Your task to perform on an android device: install app "Spotify" Image 0: 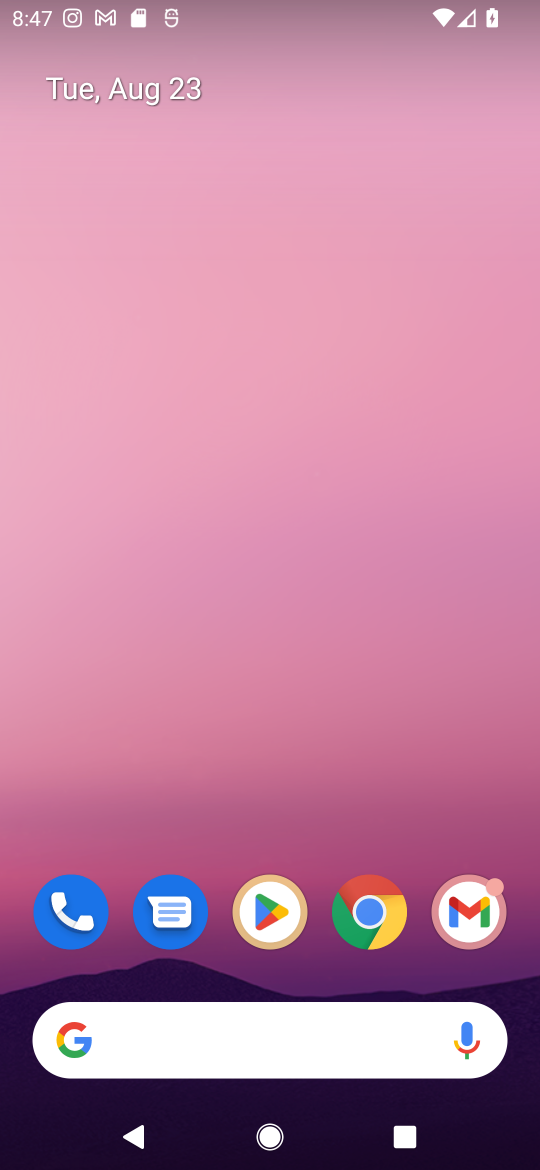
Step 0: click (270, 917)
Your task to perform on an android device: install app "Spotify" Image 1: 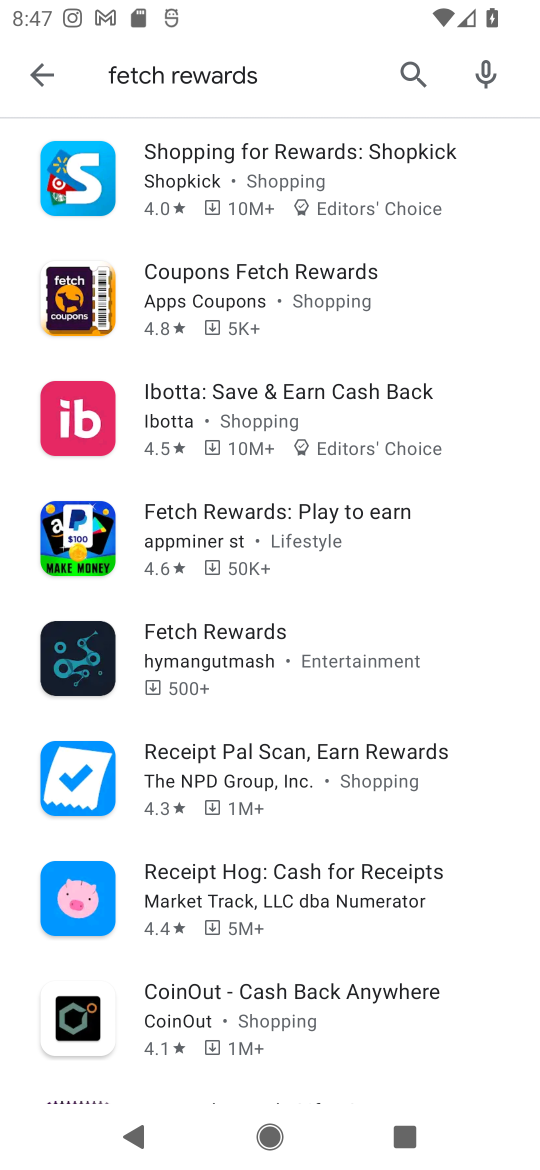
Step 1: click (410, 68)
Your task to perform on an android device: install app "Spotify" Image 2: 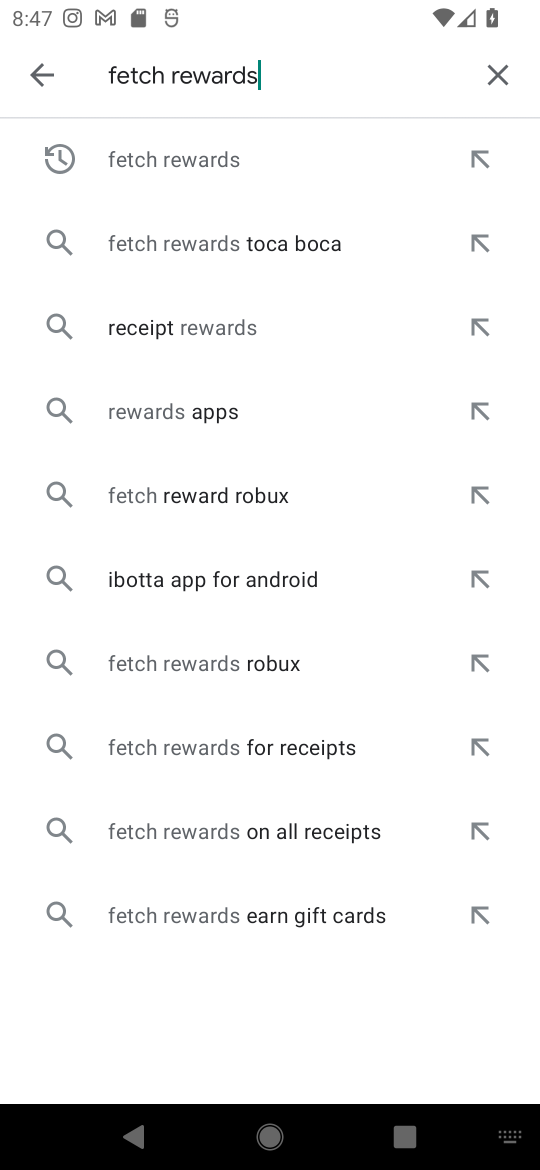
Step 2: click (495, 71)
Your task to perform on an android device: install app "Spotify" Image 3: 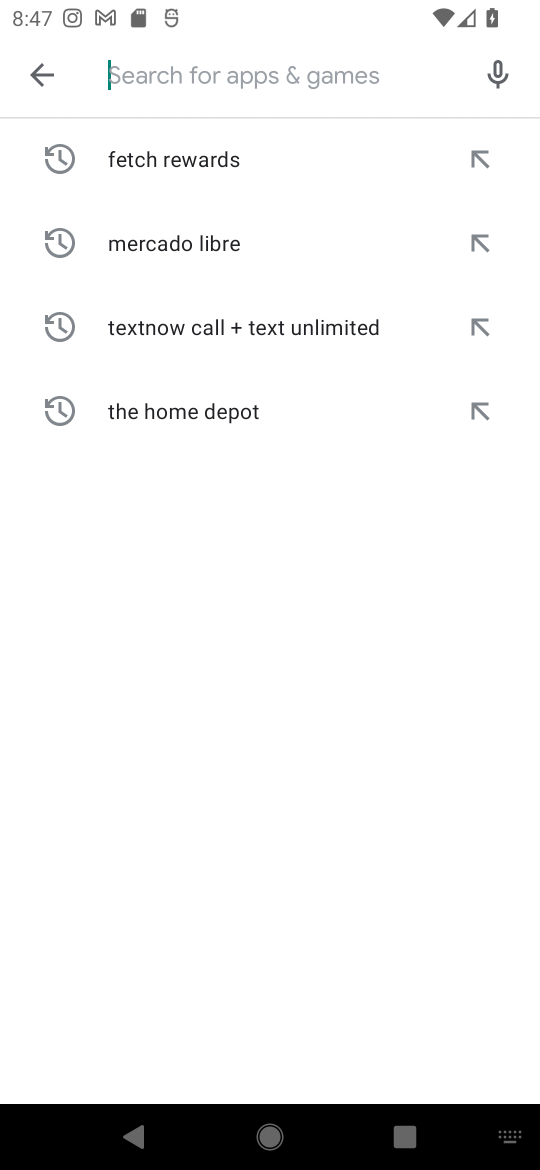
Step 3: type "Spotify"
Your task to perform on an android device: install app "Spotify" Image 4: 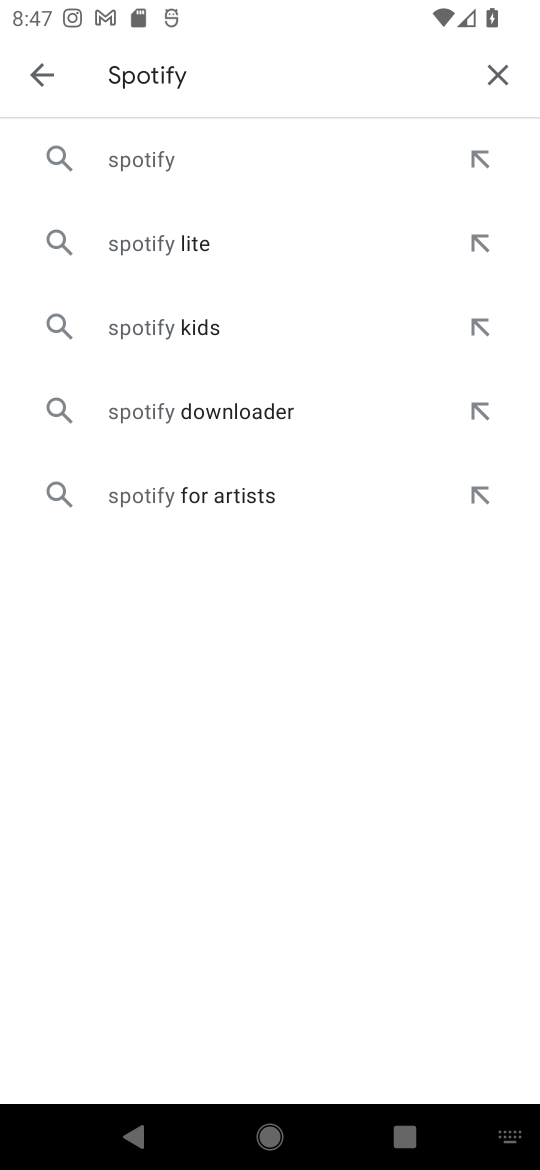
Step 4: click (147, 155)
Your task to perform on an android device: install app "Spotify" Image 5: 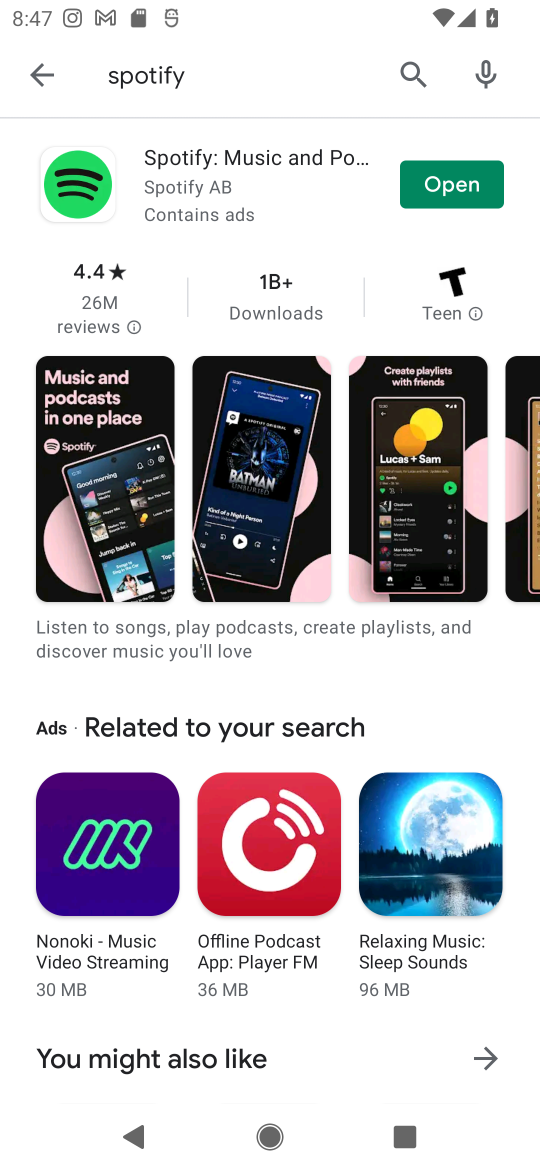
Step 5: click (450, 173)
Your task to perform on an android device: install app "Spotify" Image 6: 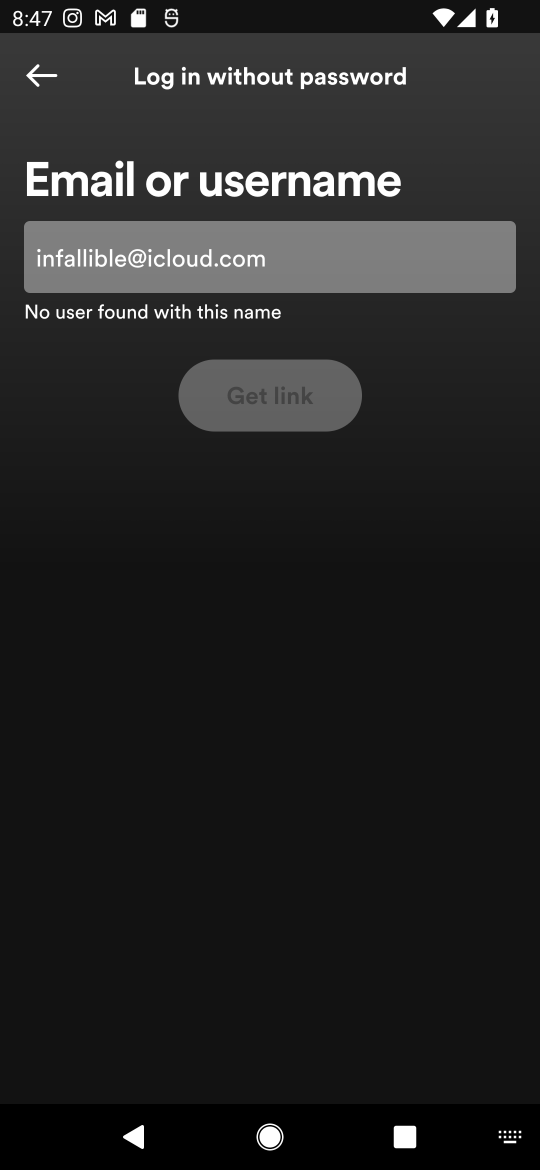
Step 6: task complete